Your task to perform on an android device: empty trash in the gmail app Image 0: 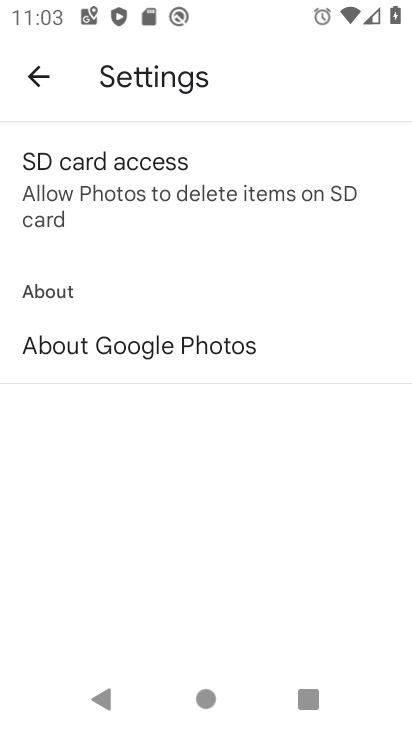
Step 0: press home button
Your task to perform on an android device: empty trash in the gmail app Image 1: 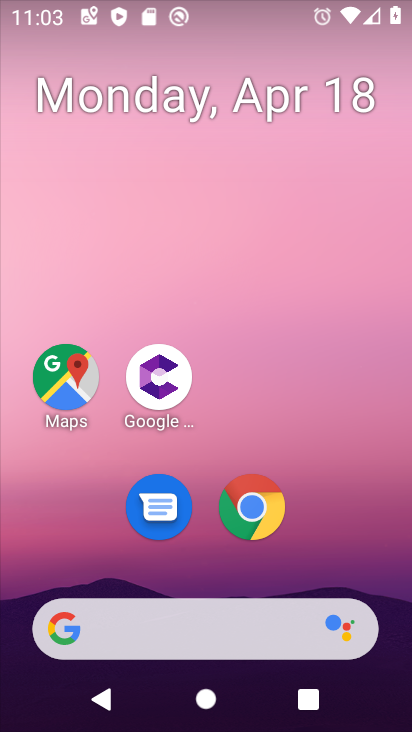
Step 1: drag from (272, 662) to (165, 46)
Your task to perform on an android device: empty trash in the gmail app Image 2: 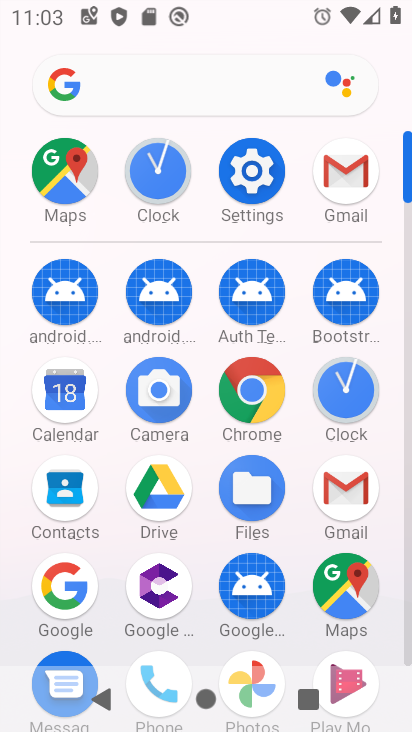
Step 2: click (339, 500)
Your task to perform on an android device: empty trash in the gmail app Image 3: 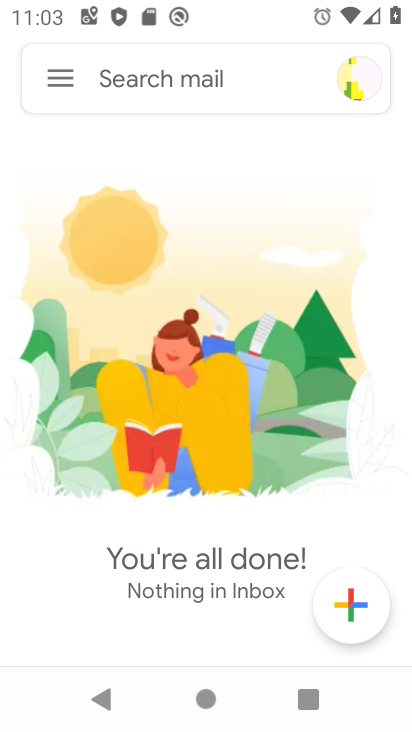
Step 3: click (55, 76)
Your task to perform on an android device: empty trash in the gmail app Image 4: 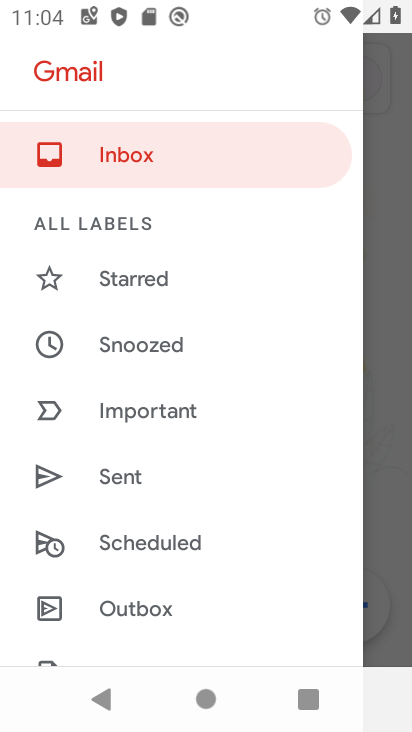
Step 4: drag from (116, 549) to (89, 421)
Your task to perform on an android device: empty trash in the gmail app Image 5: 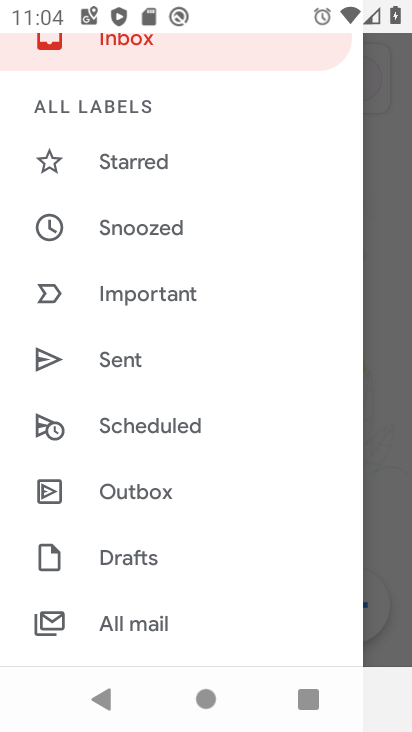
Step 5: drag from (199, 477) to (171, 388)
Your task to perform on an android device: empty trash in the gmail app Image 6: 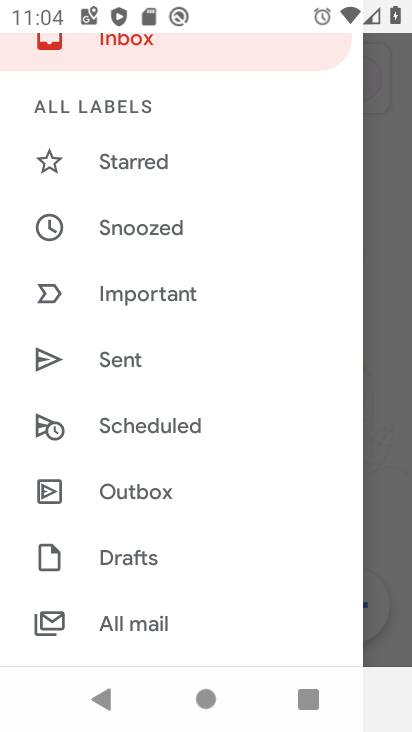
Step 6: drag from (133, 607) to (89, 372)
Your task to perform on an android device: empty trash in the gmail app Image 7: 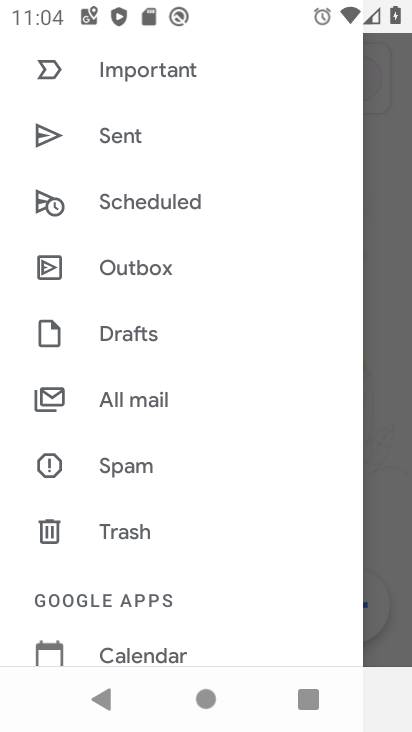
Step 7: click (132, 518)
Your task to perform on an android device: empty trash in the gmail app Image 8: 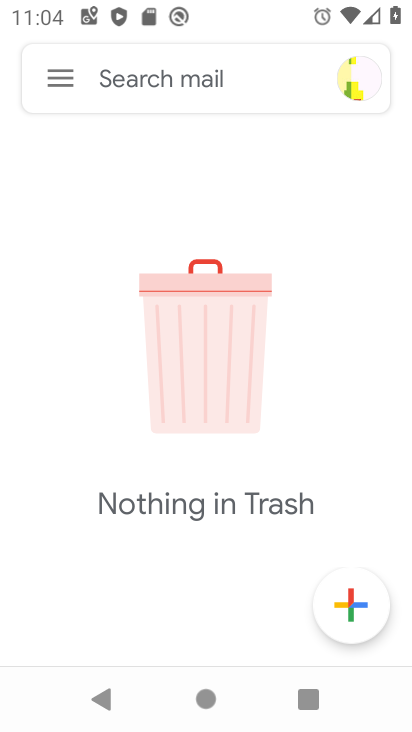
Step 8: task complete